Your task to perform on an android device: What's the weather today? Image 0: 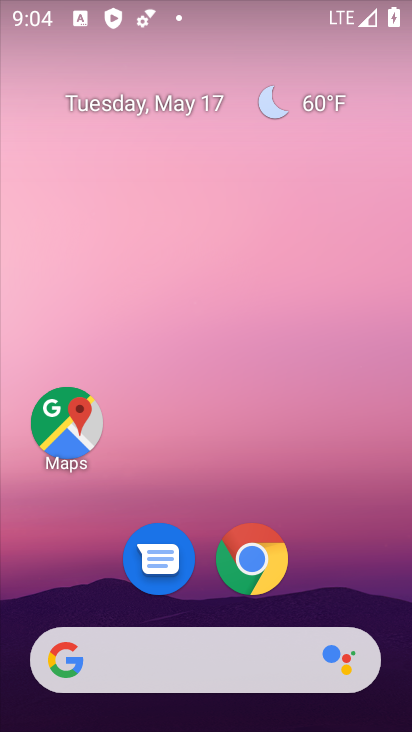
Step 0: drag from (220, 589) to (178, 211)
Your task to perform on an android device: What's the weather today? Image 1: 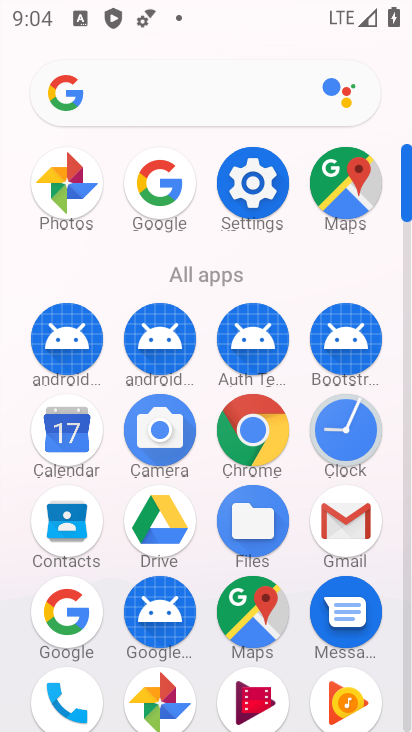
Step 1: click (178, 210)
Your task to perform on an android device: What's the weather today? Image 2: 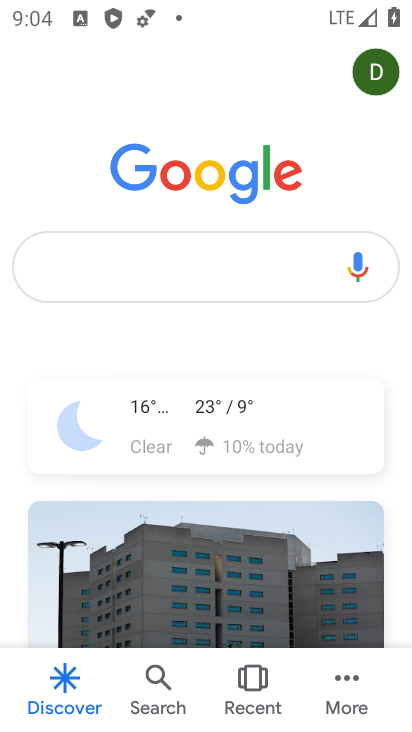
Step 2: click (191, 400)
Your task to perform on an android device: What's the weather today? Image 3: 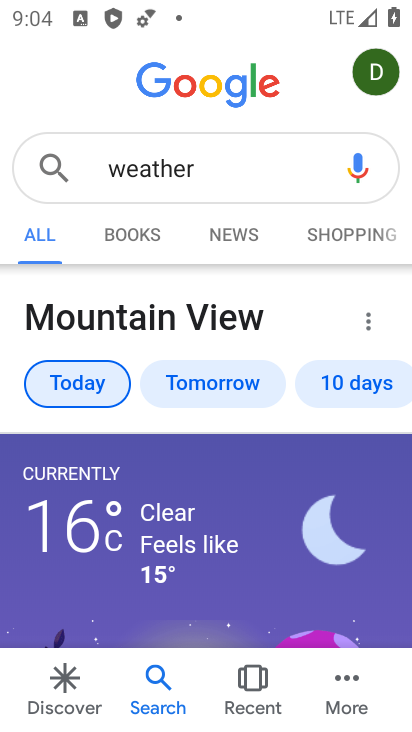
Step 3: task complete